Your task to perform on an android device: Go to ESPN.com Image 0: 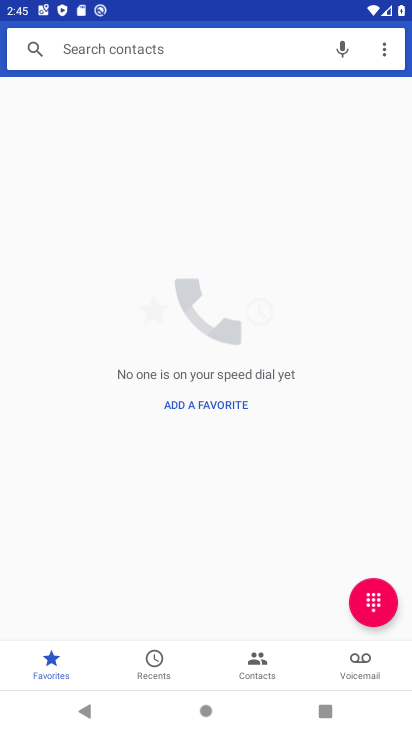
Step 0: press home button
Your task to perform on an android device: Go to ESPN.com Image 1: 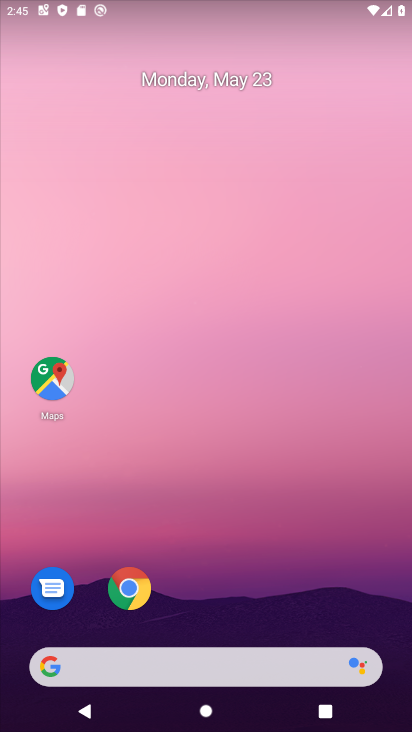
Step 1: click (131, 594)
Your task to perform on an android device: Go to ESPN.com Image 2: 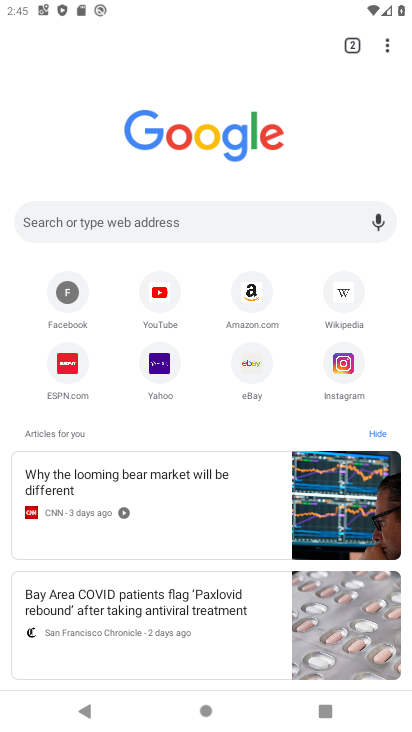
Step 2: click (75, 358)
Your task to perform on an android device: Go to ESPN.com Image 3: 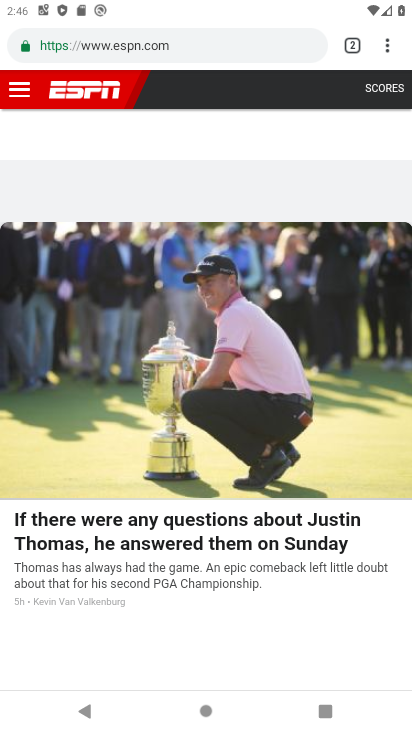
Step 3: task complete